Your task to perform on an android device: Open calendar and show me the fourth week of next month Image 0: 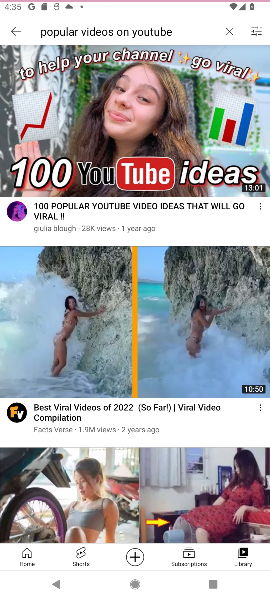
Step 0: press back button
Your task to perform on an android device: Open calendar and show me the fourth week of next month Image 1: 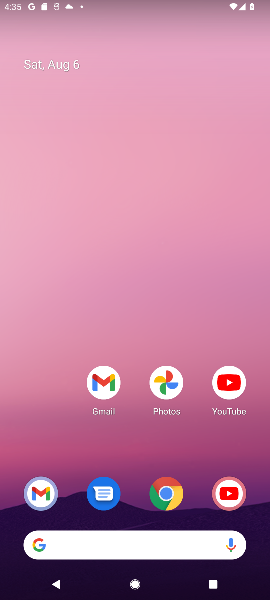
Step 1: drag from (194, 574) to (131, 138)
Your task to perform on an android device: Open calendar and show me the fourth week of next month Image 2: 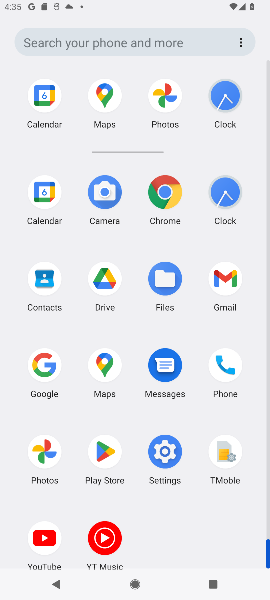
Step 2: click (37, 191)
Your task to perform on an android device: Open calendar and show me the fourth week of next month Image 3: 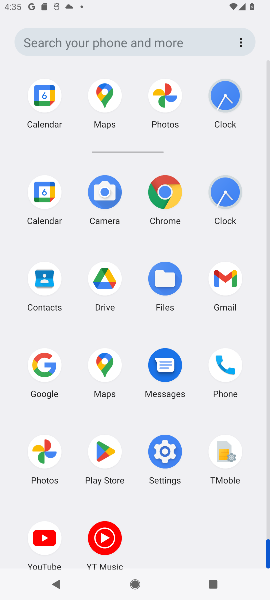
Step 3: click (37, 191)
Your task to perform on an android device: Open calendar and show me the fourth week of next month Image 4: 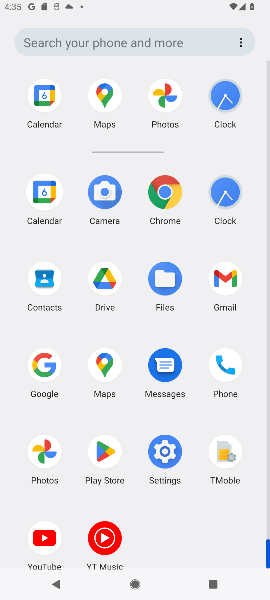
Step 4: click (37, 191)
Your task to perform on an android device: Open calendar and show me the fourth week of next month Image 5: 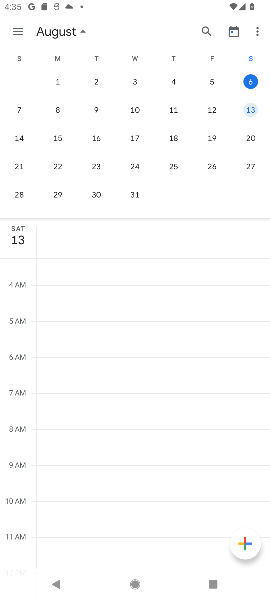
Step 5: drag from (228, 124) to (34, 130)
Your task to perform on an android device: Open calendar and show me the fourth week of next month Image 6: 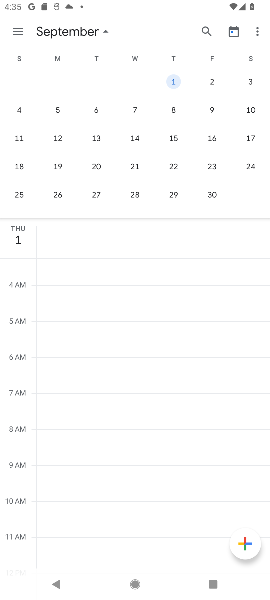
Step 6: click (171, 136)
Your task to perform on an android device: Open calendar and show me the fourth week of next month Image 7: 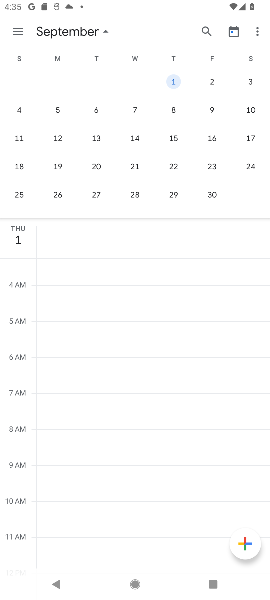
Step 7: click (171, 136)
Your task to perform on an android device: Open calendar and show me the fourth week of next month Image 8: 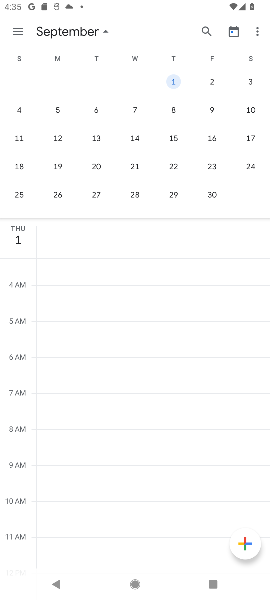
Step 8: click (171, 136)
Your task to perform on an android device: Open calendar and show me the fourth week of next month Image 9: 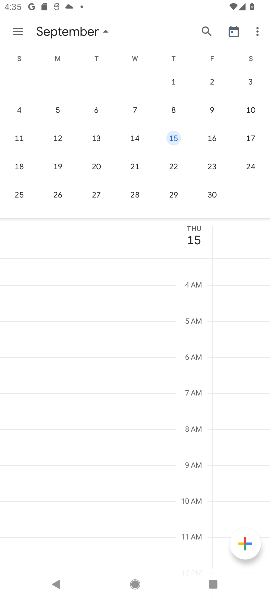
Step 9: click (171, 136)
Your task to perform on an android device: Open calendar and show me the fourth week of next month Image 10: 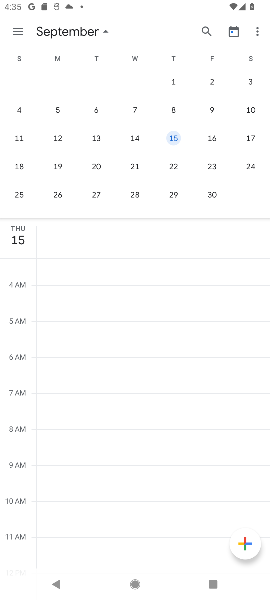
Step 10: task complete